Your task to perform on an android device: turn off javascript in the chrome app Image 0: 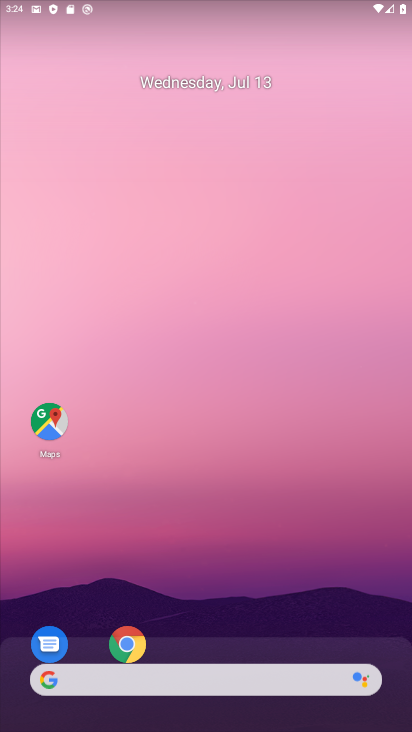
Step 0: click (129, 651)
Your task to perform on an android device: turn off javascript in the chrome app Image 1: 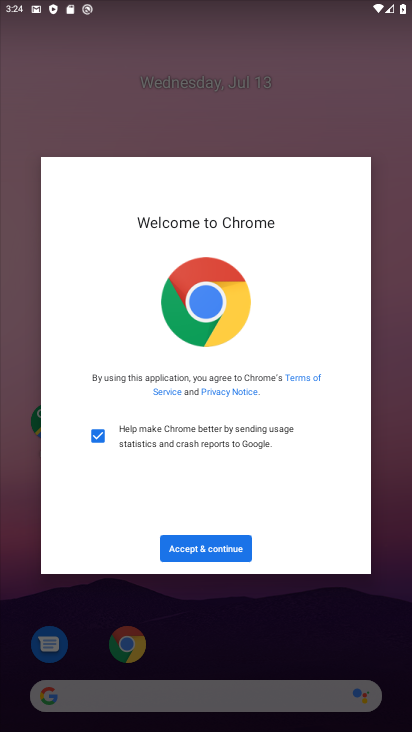
Step 1: click (221, 544)
Your task to perform on an android device: turn off javascript in the chrome app Image 2: 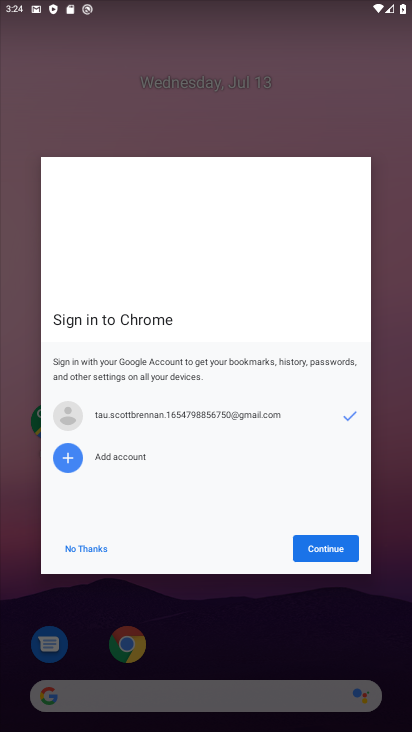
Step 2: click (310, 554)
Your task to perform on an android device: turn off javascript in the chrome app Image 3: 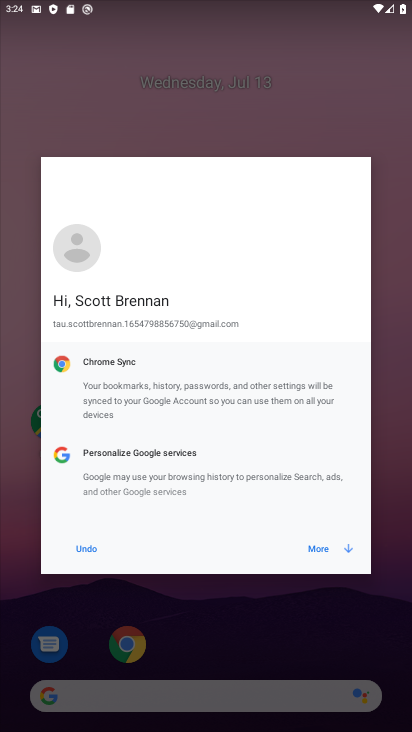
Step 3: click (313, 554)
Your task to perform on an android device: turn off javascript in the chrome app Image 4: 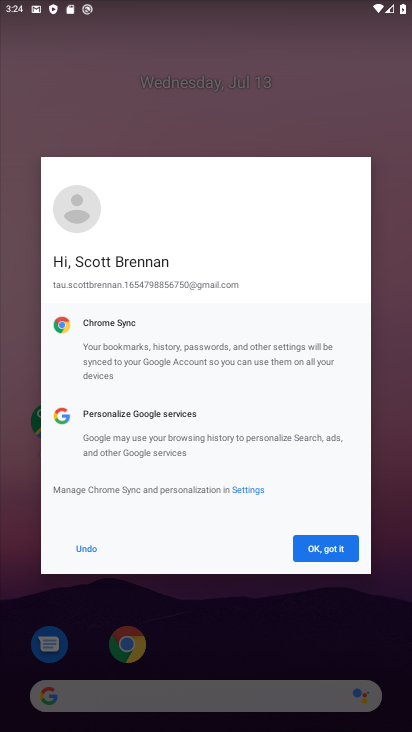
Step 4: click (313, 554)
Your task to perform on an android device: turn off javascript in the chrome app Image 5: 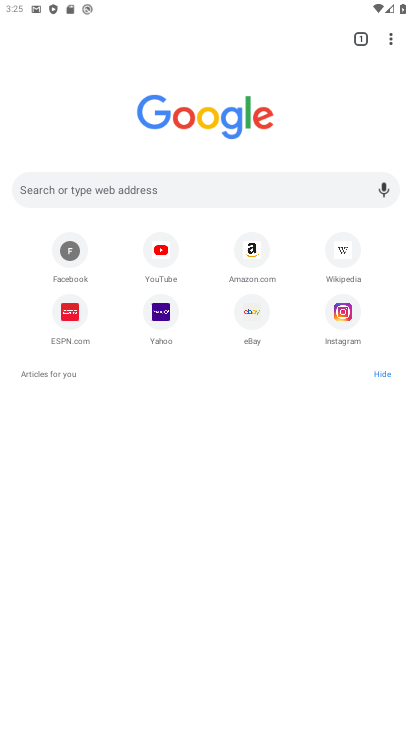
Step 5: click (397, 41)
Your task to perform on an android device: turn off javascript in the chrome app Image 6: 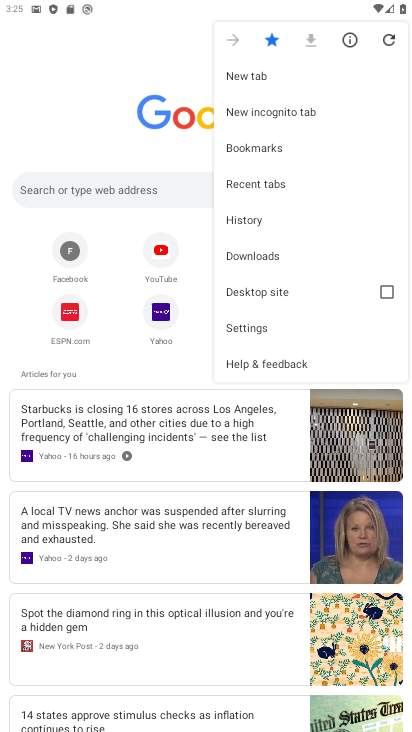
Step 6: click (245, 320)
Your task to perform on an android device: turn off javascript in the chrome app Image 7: 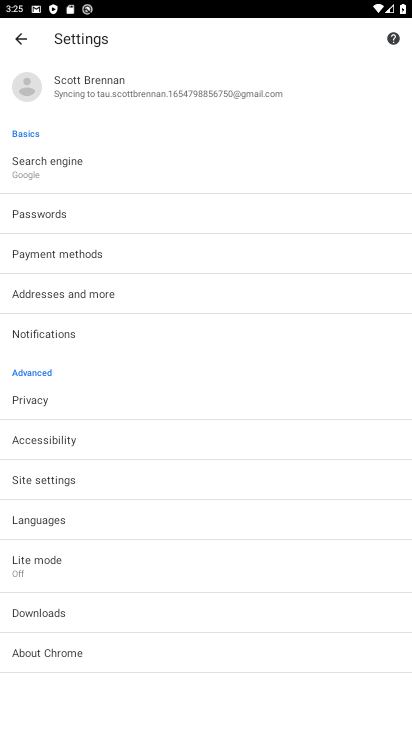
Step 7: click (67, 485)
Your task to perform on an android device: turn off javascript in the chrome app Image 8: 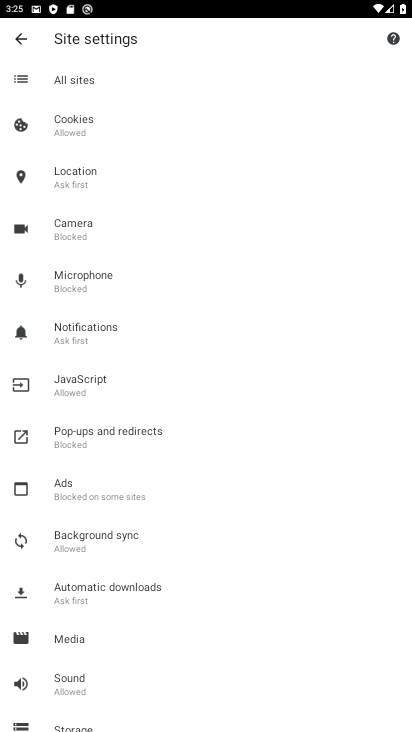
Step 8: click (123, 372)
Your task to perform on an android device: turn off javascript in the chrome app Image 9: 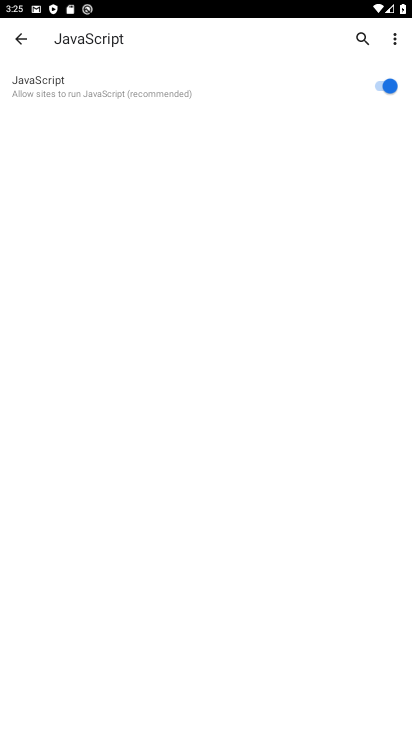
Step 9: click (385, 83)
Your task to perform on an android device: turn off javascript in the chrome app Image 10: 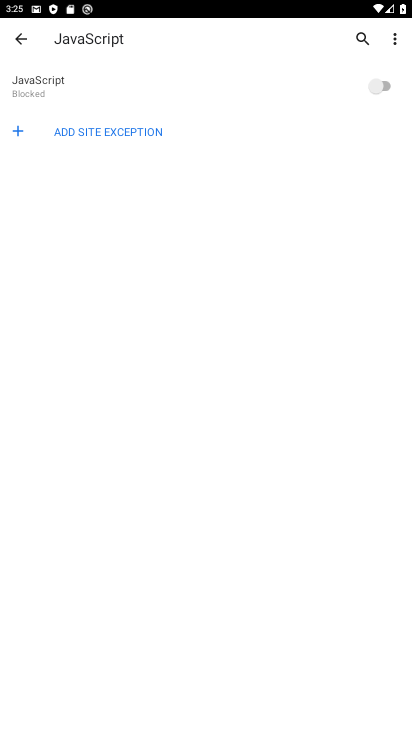
Step 10: task complete